Your task to perform on an android device: turn off sleep mode Image 0: 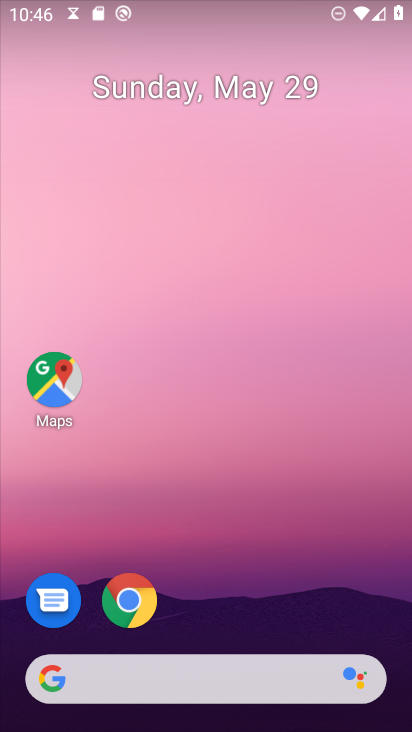
Step 0: drag from (223, 723) to (181, 245)
Your task to perform on an android device: turn off sleep mode Image 1: 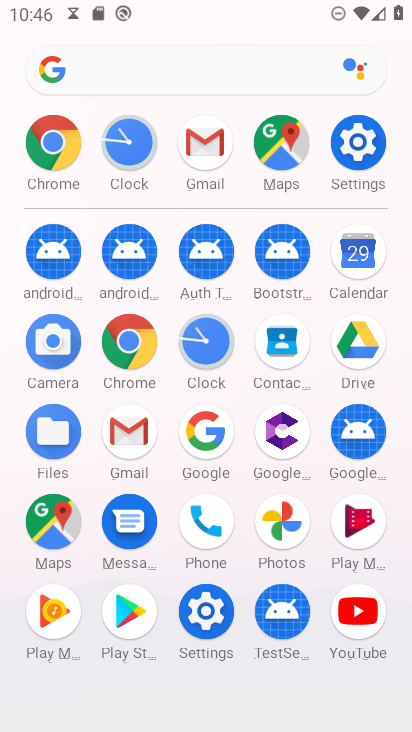
Step 1: click (357, 149)
Your task to perform on an android device: turn off sleep mode Image 2: 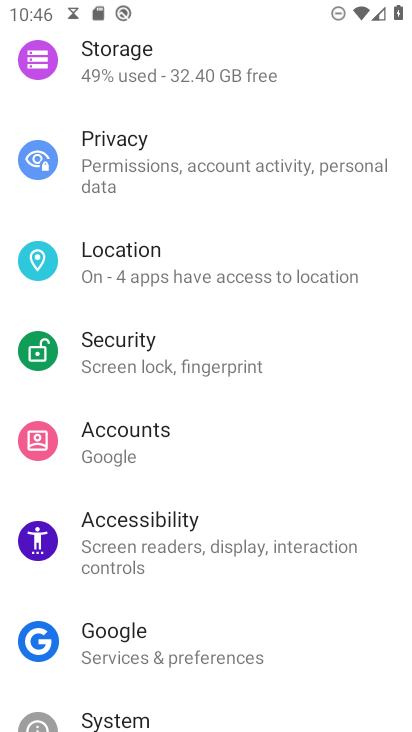
Step 2: drag from (192, 135) to (181, 546)
Your task to perform on an android device: turn off sleep mode Image 3: 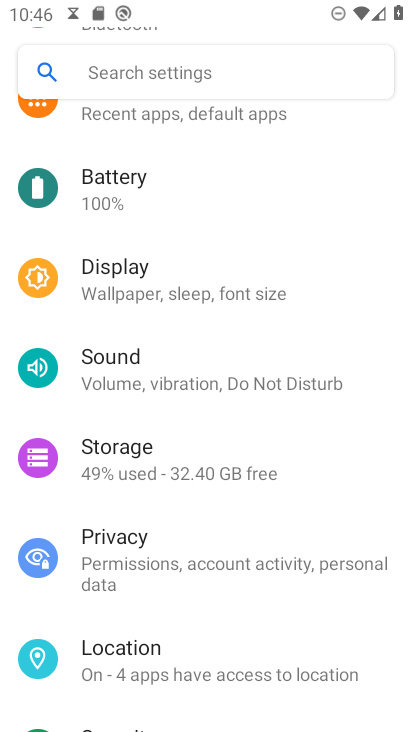
Step 3: drag from (195, 134) to (203, 479)
Your task to perform on an android device: turn off sleep mode Image 4: 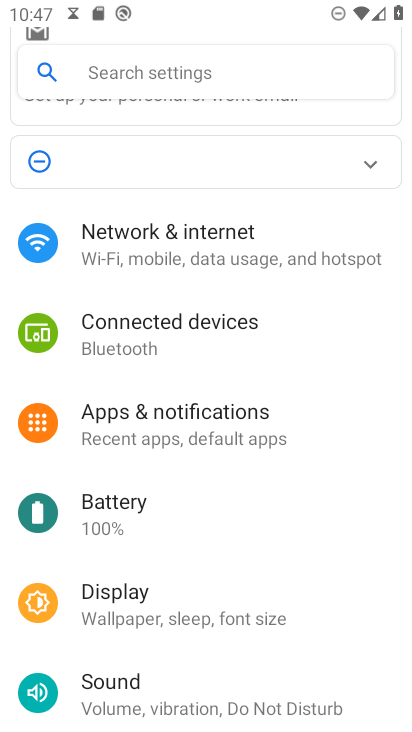
Step 4: drag from (173, 672) to (192, 264)
Your task to perform on an android device: turn off sleep mode Image 5: 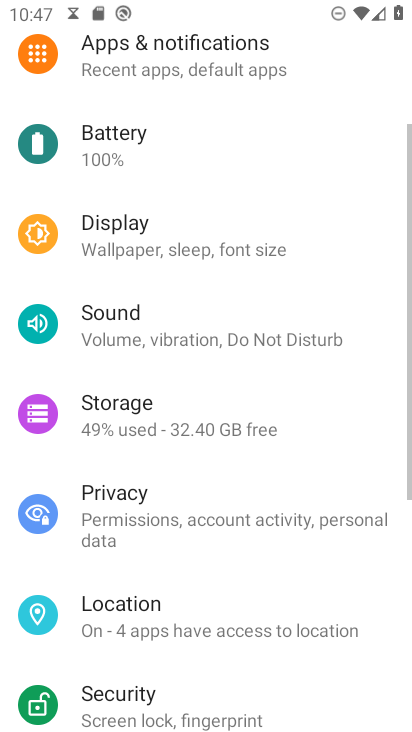
Step 5: click (197, 410)
Your task to perform on an android device: turn off sleep mode Image 6: 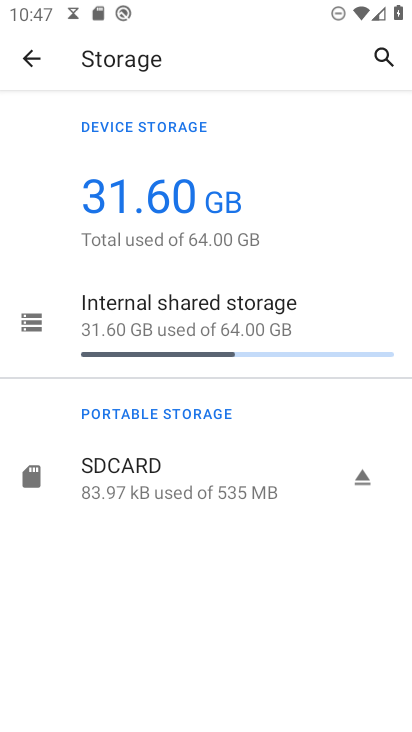
Step 6: click (25, 56)
Your task to perform on an android device: turn off sleep mode Image 7: 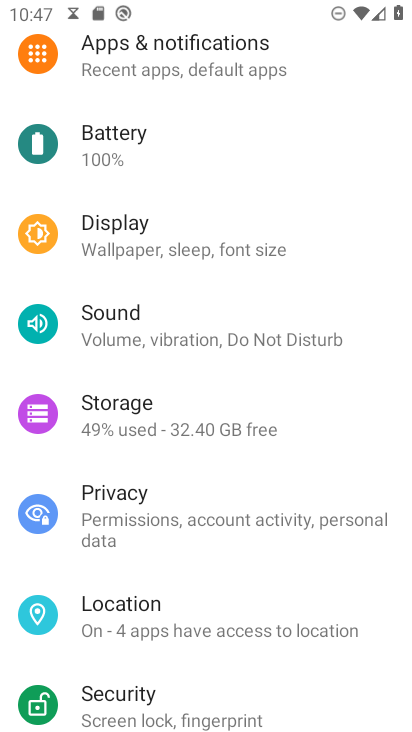
Step 7: task complete